Your task to perform on an android device: turn on translation in the chrome app Image 0: 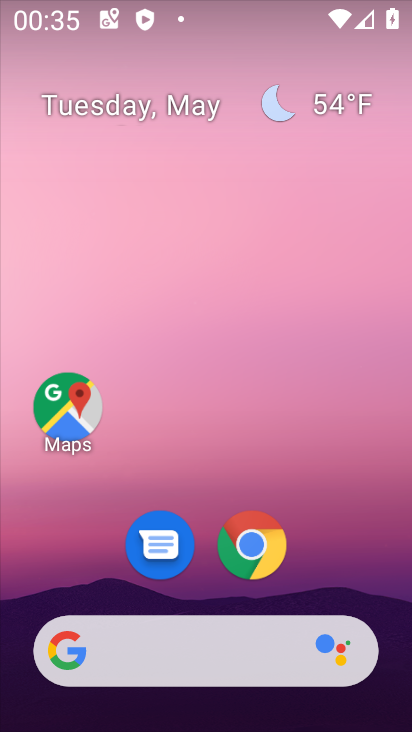
Step 0: click (247, 549)
Your task to perform on an android device: turn on translation in the chrome app Image 1: 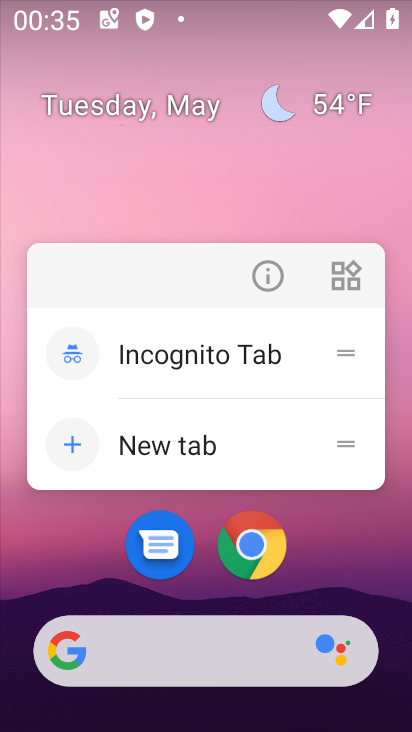
Step 1: click (266, 541)
Your task to perform on an android device: turn on translation in the chrome app Image 2: 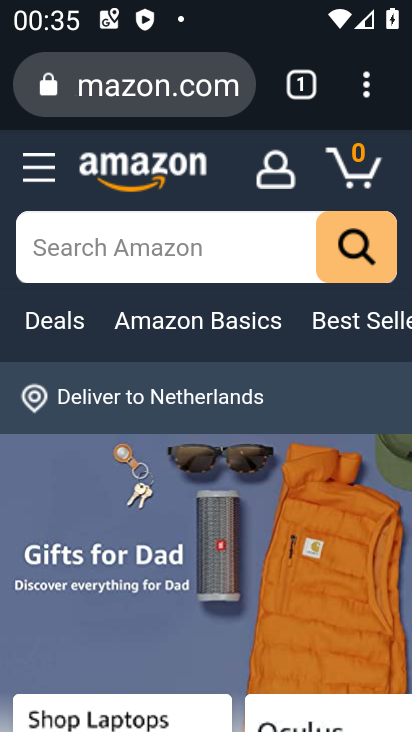
Step 2: click (389, 86)
Your task to perform on an android device: turn on translation in the chrome app Image 3: 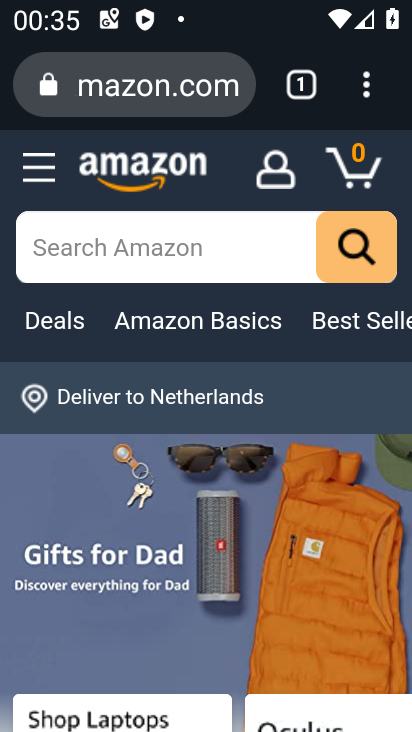
Step 3: click (380, 95)
Your task to perform on an android device: turn on translation in the chrome app Image 4: 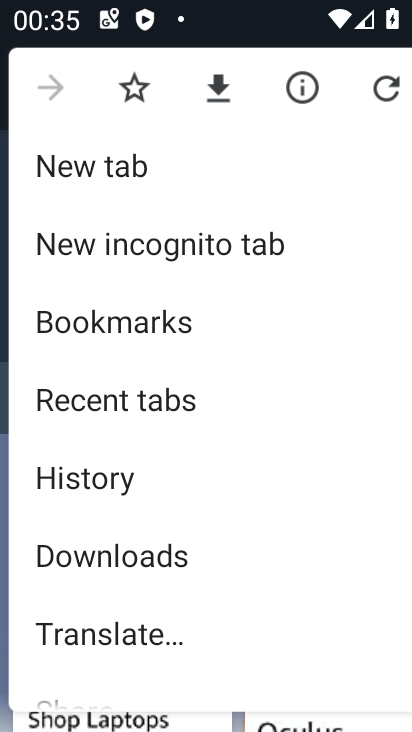
Step 4: drag from (286, 542) to (237, 187)
Your task to perform on an android device: turn on translation in the chrome app Image 5: 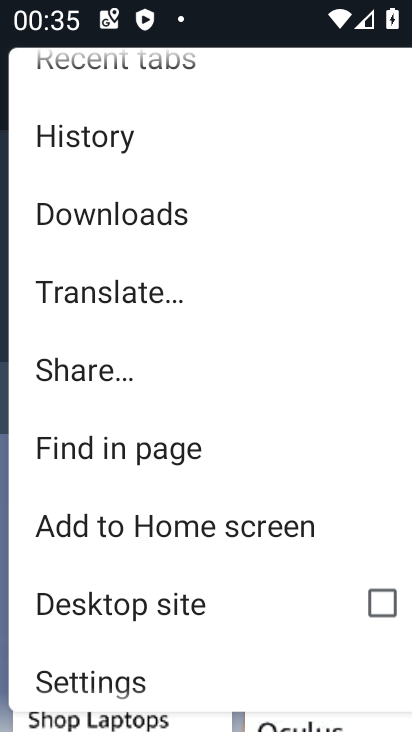
Step 5: drag from (139, 625) to (120, 249)
Your task to perform on an android device: turn on translation in the chrome app Image 6: 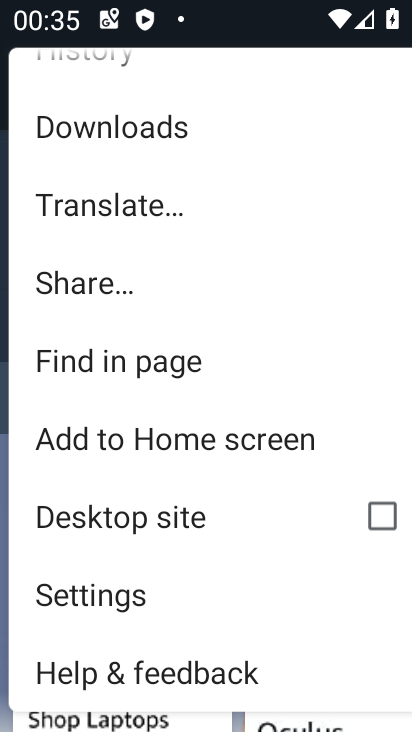
Step 6: click (118, 582)
Your task to perform on an android device: turn on translation in the chrome app Image 7: 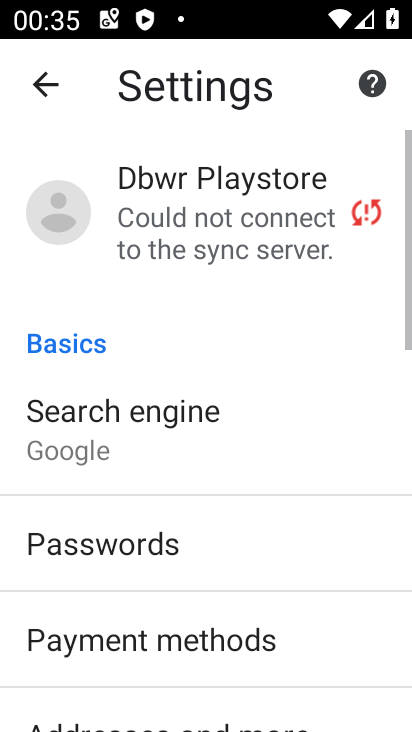
Step 7: drag from (241, 632) to (223, 80)
Your task to perform on an android device: turn on translation in the chrome app Image 8: 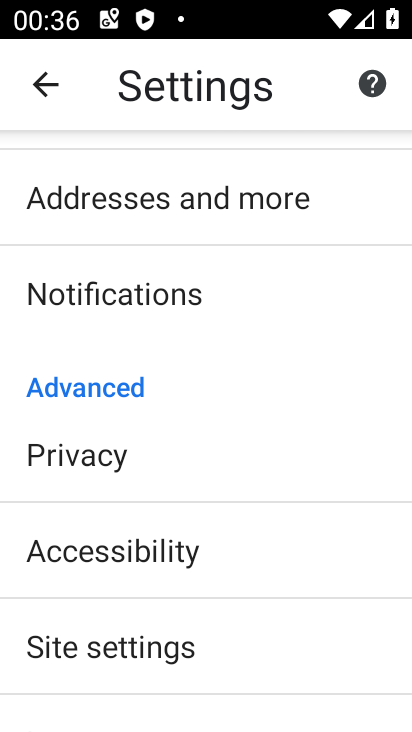
Step 8: drag from (227, 578) to (202, 145)
Your task to perform on an android device: turn on translation in the chrome app Image 9: 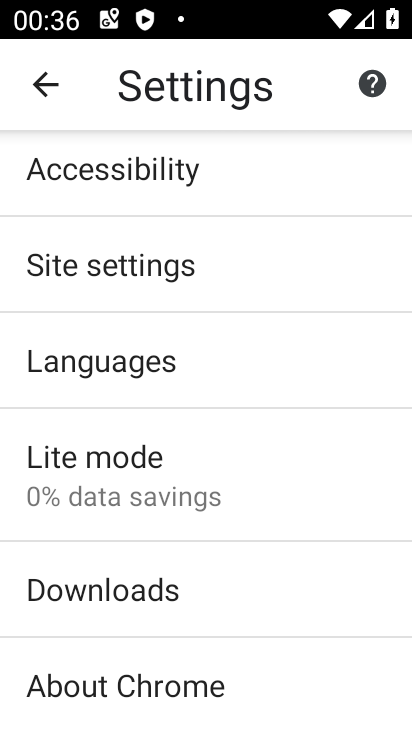
Step 9: drag from (175, 658) to (177, 288)
Your task to perform on an android device: turn on translation in the chrome app Image 10: 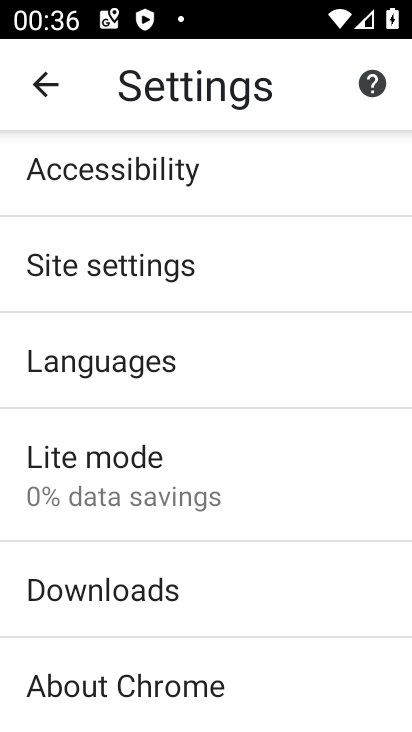
Step 10: click (128, 368)
Your task to perform on an android device: turn on translation in the chrome app Image 11: 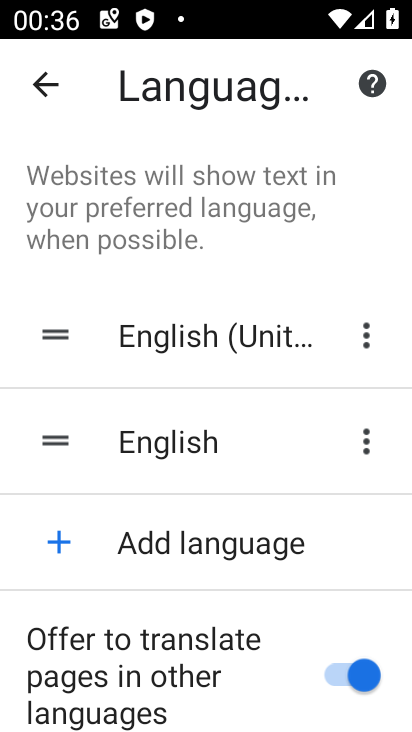
Step 11: task complete